Your task to perform on an android device: Open my contact list Image 0: 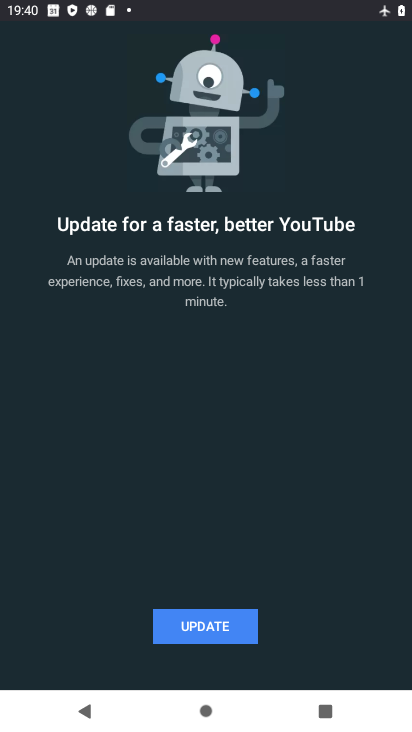
Step 0: press home button
Your task to perform on an android device: Open my contact list Image 1: 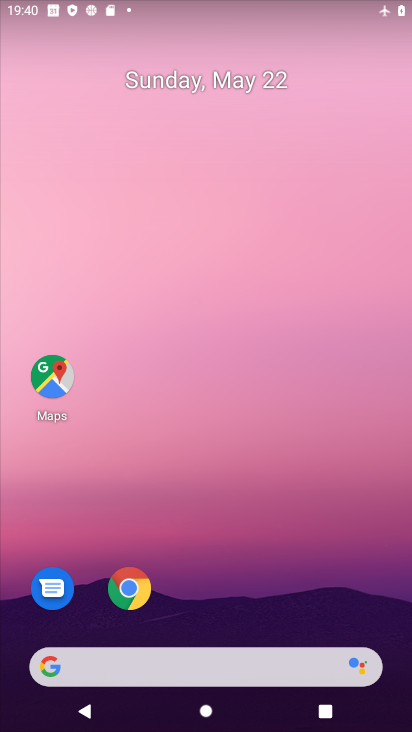
Step 1: drag from (230, 527) to (199, 206)
Your task to perform on an android device: Open my contact list Image 2: 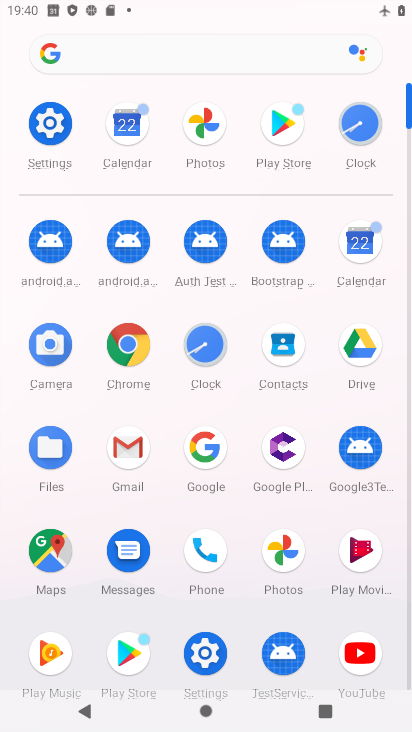
Step 2: click (279, 344)
Your task to perform on an android device: Open my contact list Image 3: 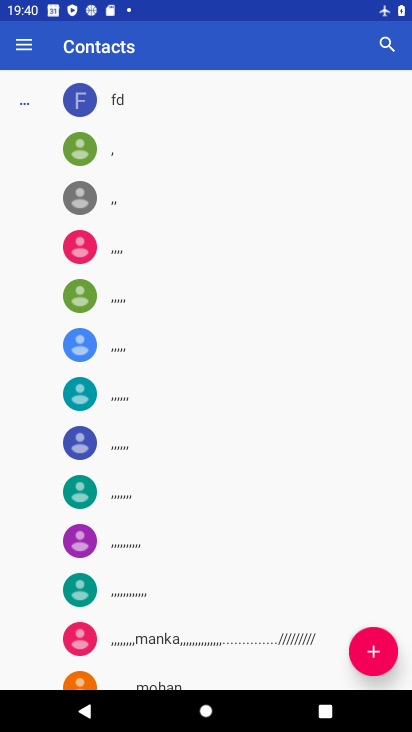
Step 3: task complete